Your task to perform on an android device: turn pop-ups off in chrome Image 0: 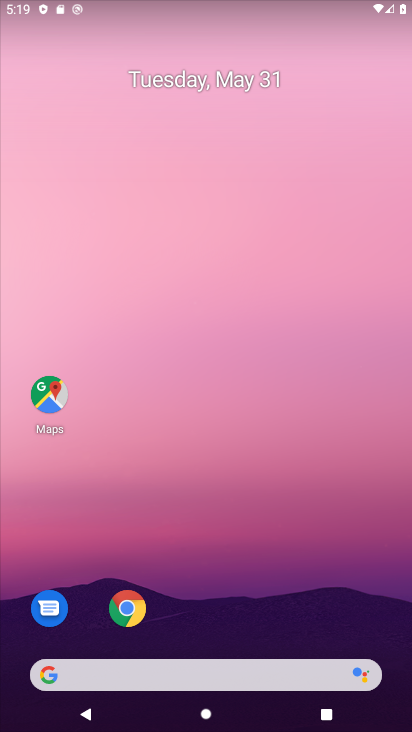
Step 0: click (117, 594)
Your task to perform on an android device: turn pop-ups off in chrome Image 1: 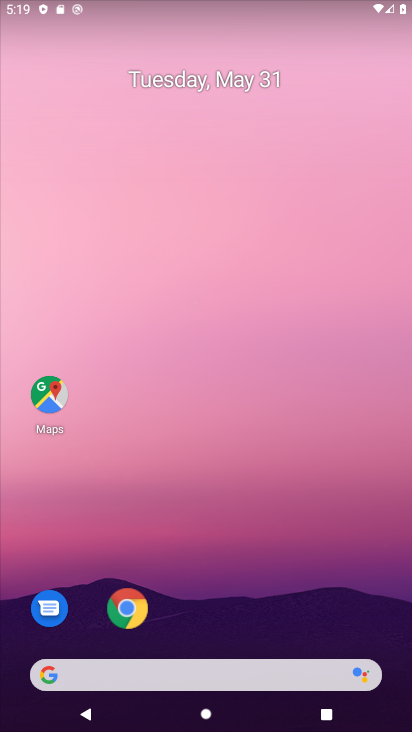
Step 1: click (126, 611)
Your task to perform on an android device: turn pop-ups off in chrome Image 2: 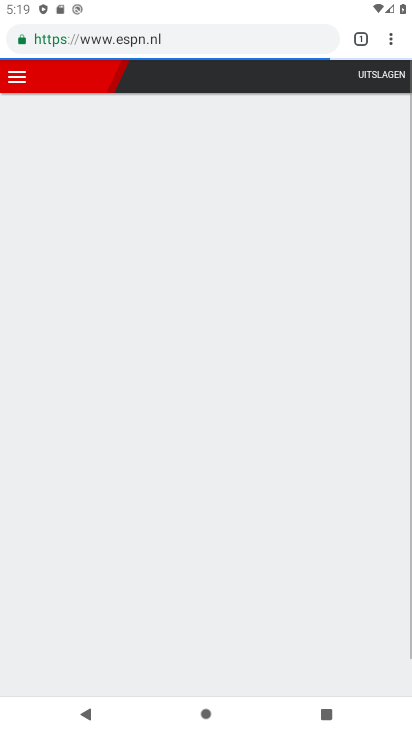
Step 2: click (390, 40)
Your task to perform on an android device: turn pop-ups off in chrome Image 3: 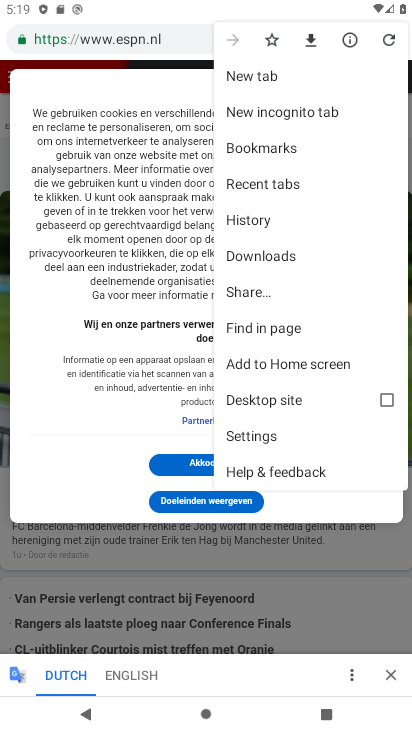
Step 3: click (265, 431)
Your task to perform on an android device: turn pop-ups off in chrome Image 4: 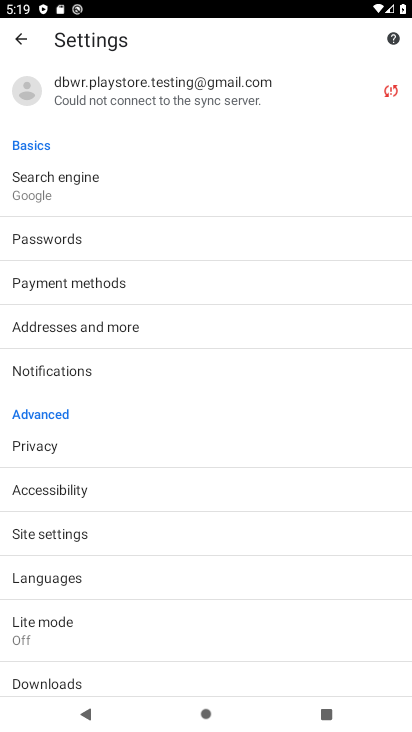
Step 4: click (68, 540)
Your task to perform on an android device: turn pop-ups off in chrome Image 5: 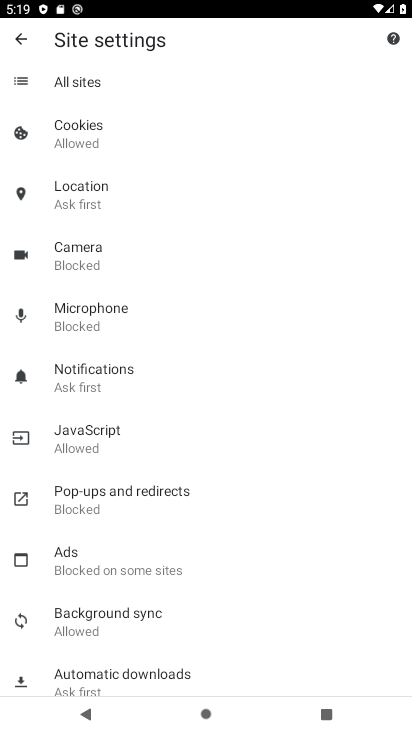
Step 5: click (127, 494)
Your task to perform on an android device: turn pop-ups off in chrome Image 6: 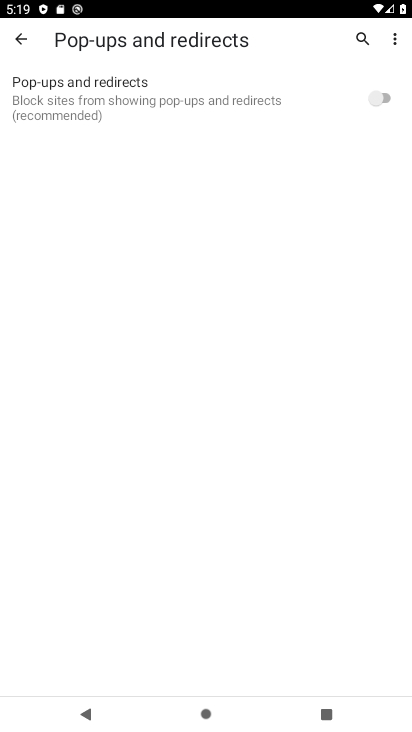
Step 6: task complete